Your task to perform on an android device: uninstall "Grab" Image 0: 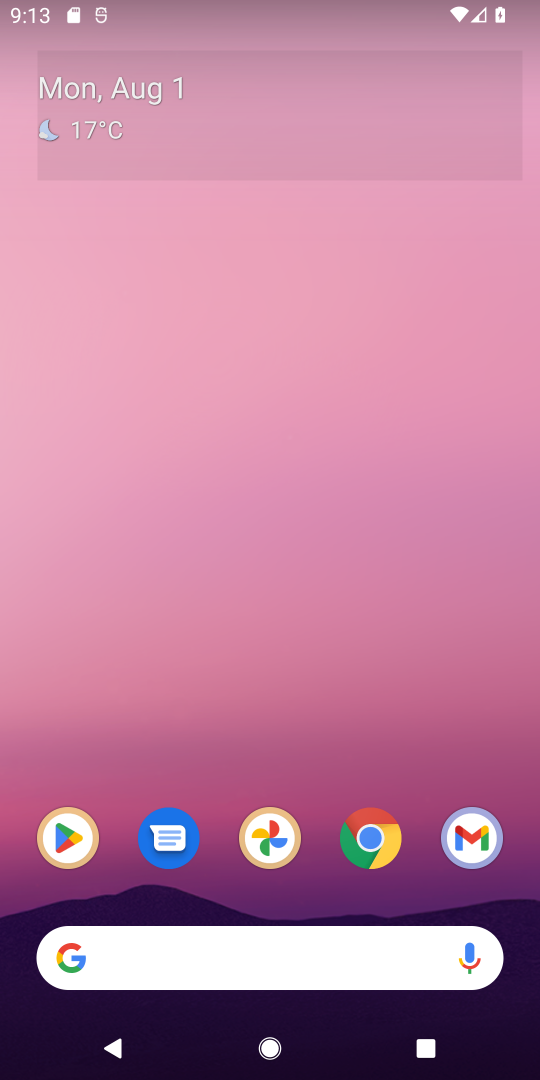
Step 0: press home button
Your task to perform on an android device: uninstall "Grab" Image 1: 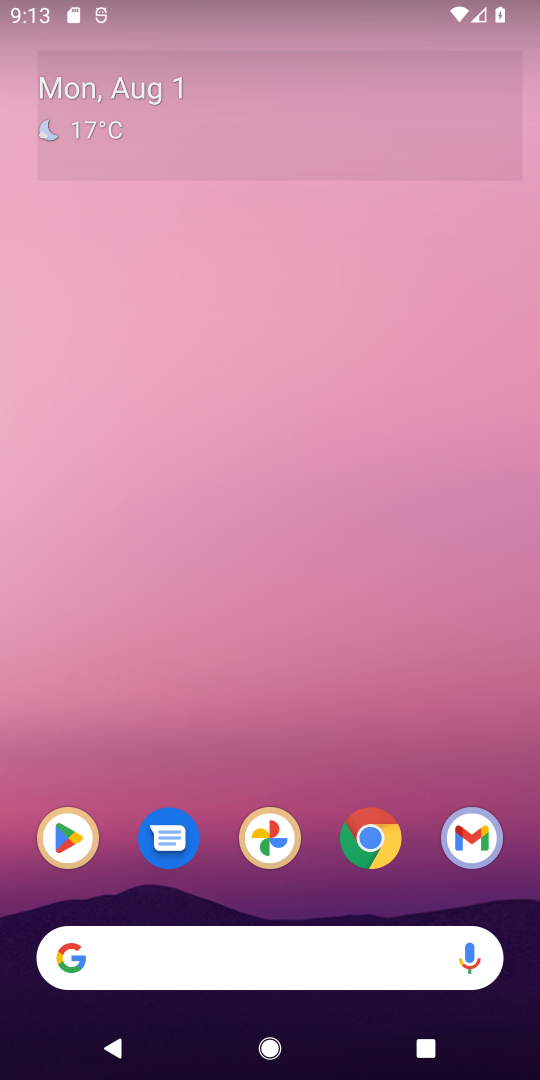
Step 1: click (66, 849)
Your task to perform on an android device: uninstall "Grab" Image 2: 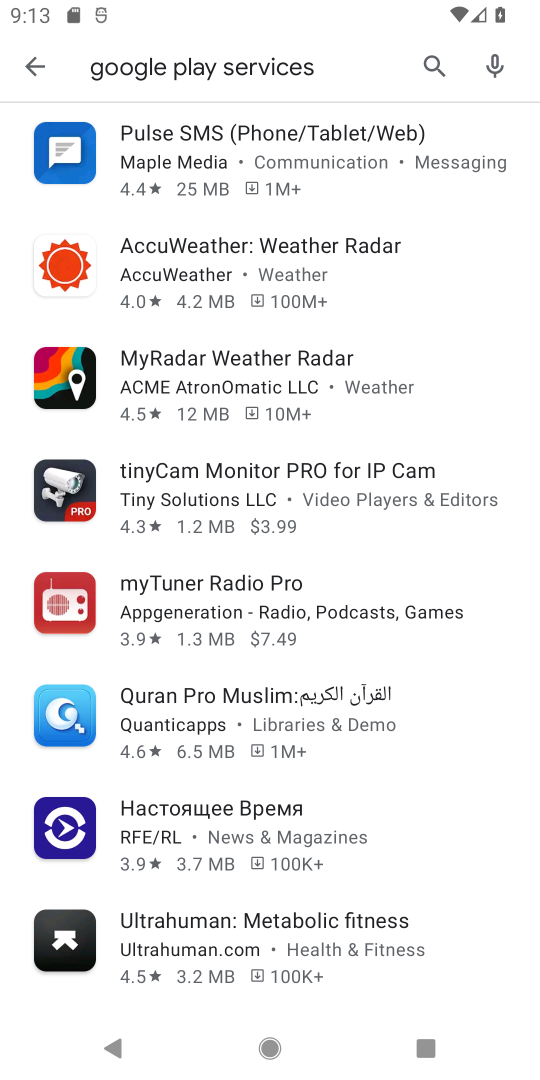
Step 2: click (421, 66)
Your task to perform on an android device: uninstall "Grab" Image 3: 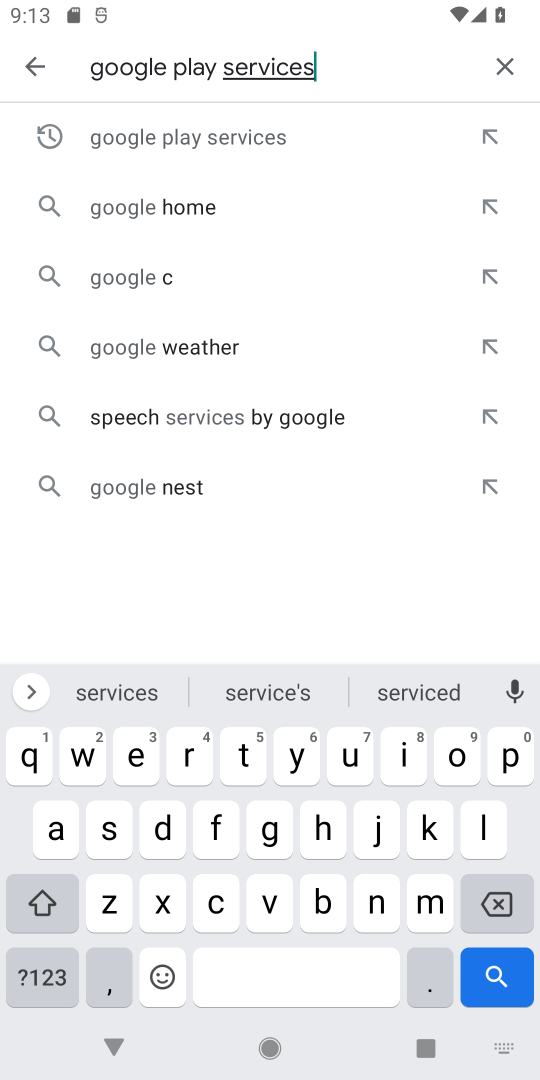
Step 3: click (501, 61)
Your task to perform on an android device: uninstall "Grab" Image 4: 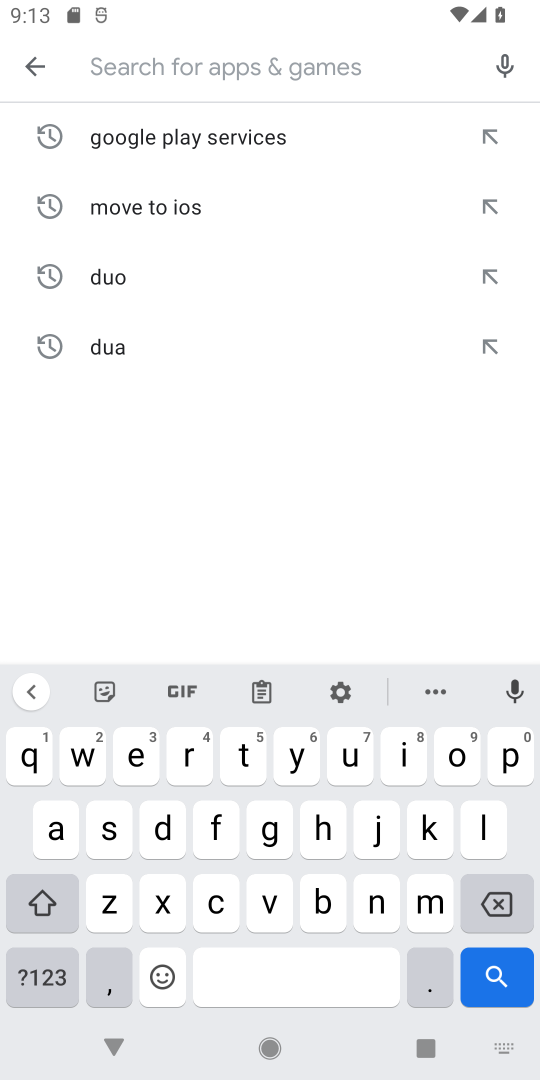
Step 4: click (264, 832)
Your task to perform on an android device: uninstall "Grab" Image 5: 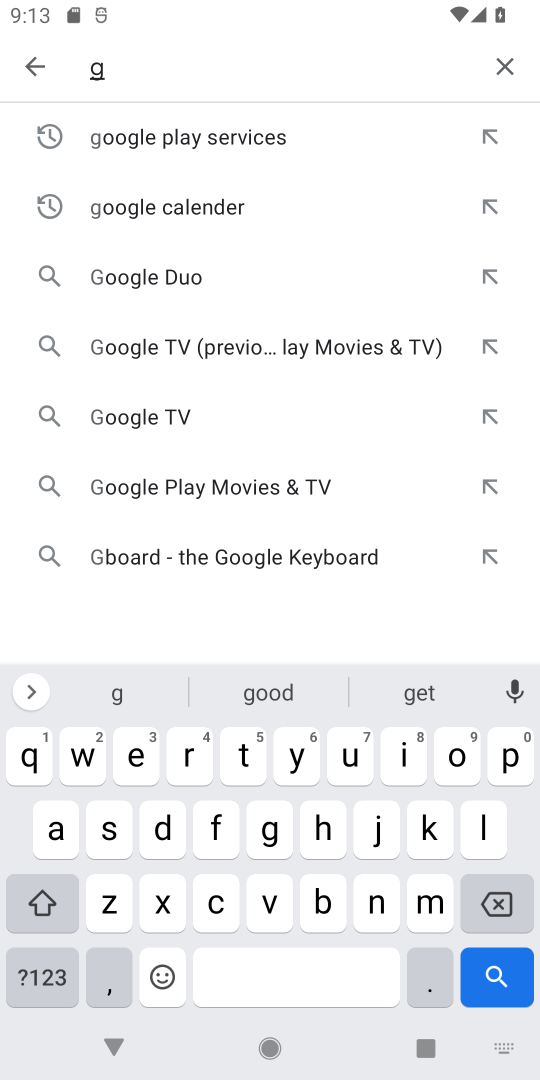
Step 5: click (187, 755)
Your task to perform on an android device: uninstall "Grab" Image 6: 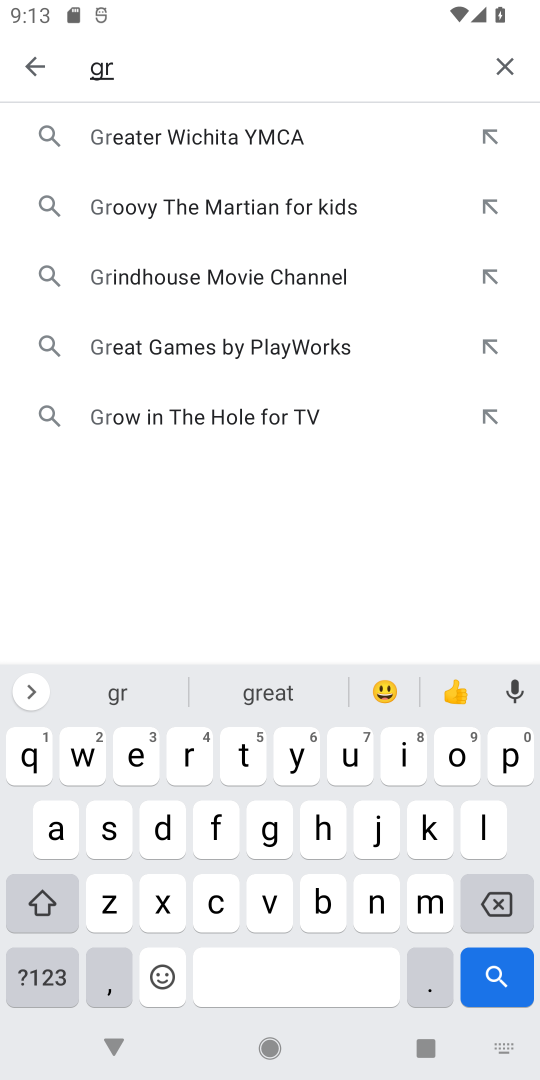
Step 6: click (51, 827)
Your task to perform on an android device: uninstall "Grab" Image 7: 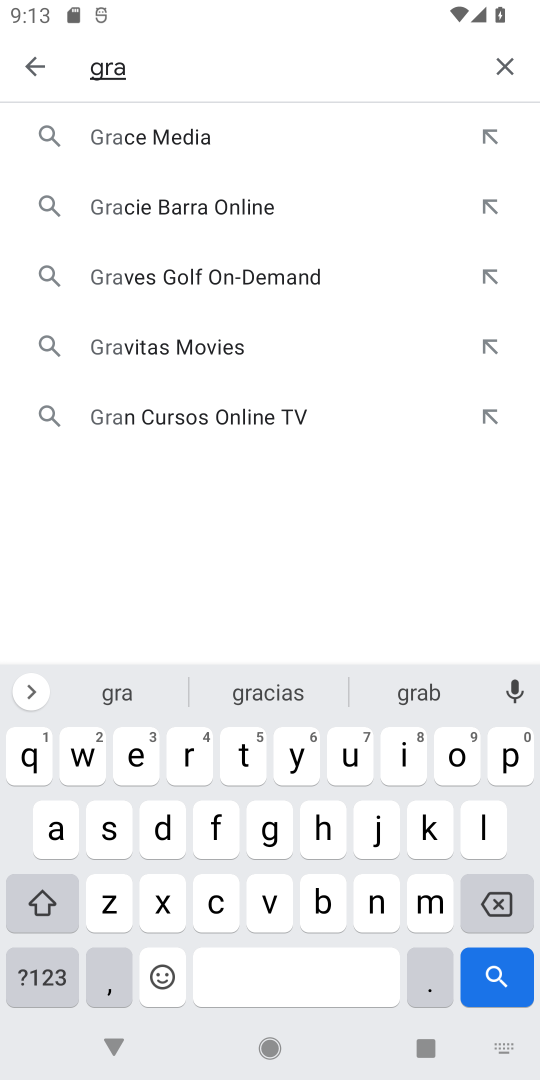
Step 7: click (329, 902)
Your task to perform on an android device: uninstall "Grab" Image 8: 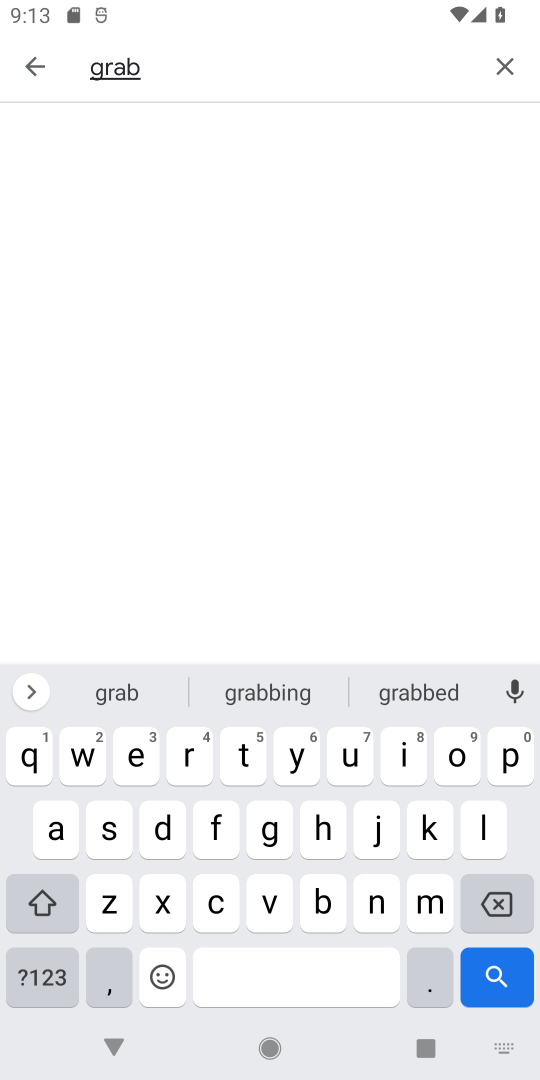
Step 8: click (491, 977)
Your task to perform on an android device: uninstall "Grab" Image 9: 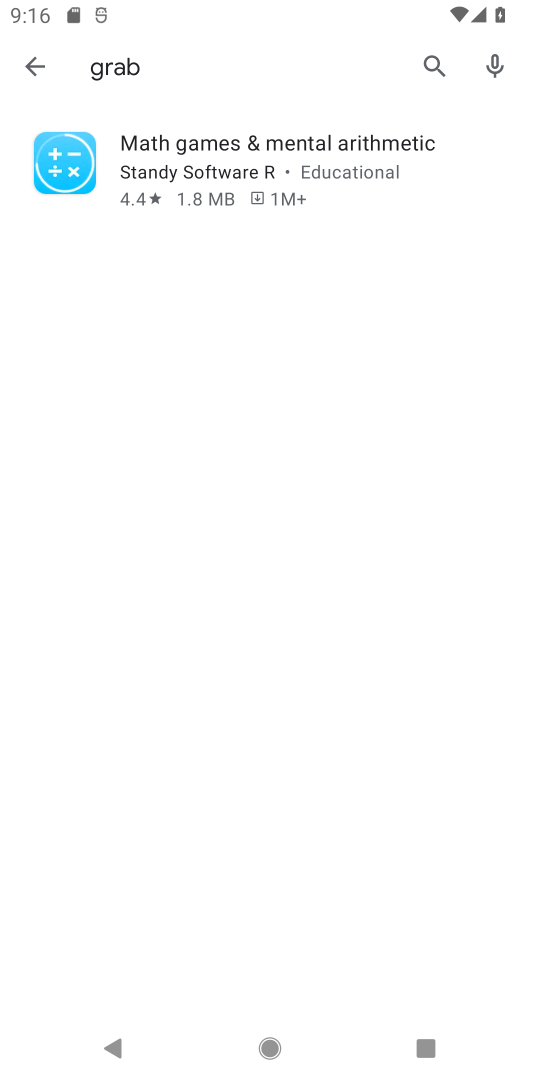
Step 9: task complete